Your task to perform on an android device: Show me recent news Image 0: 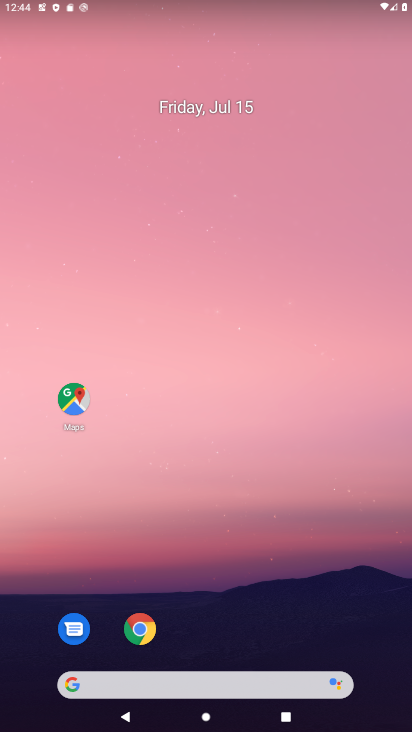
Step 0: drag from (234, 643) to (238, 165)
Your task to perform on an android device: Show me recent news Image 1: 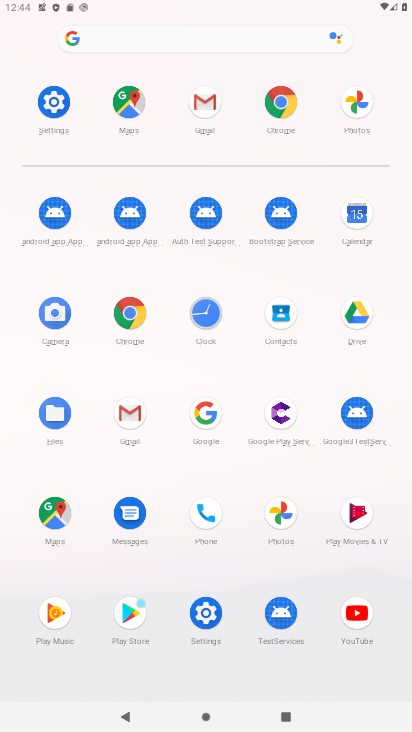
Step 1: click (282, 101)
Your task to perform on an android device: Show me recent news Image 2: 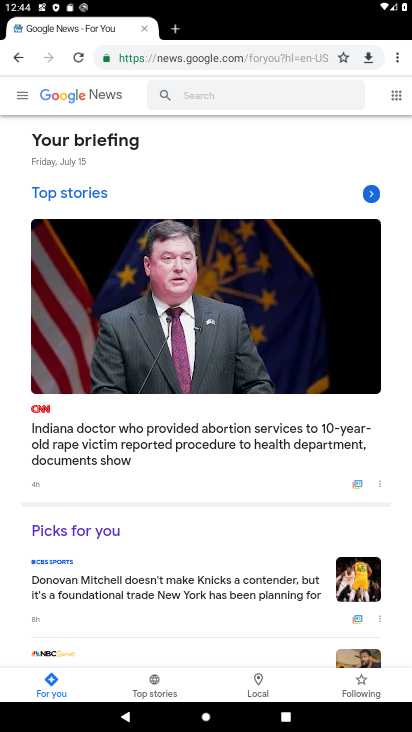
Step 2: task complete